Your task to perform on an android device: Open Reddit.com Image 0: 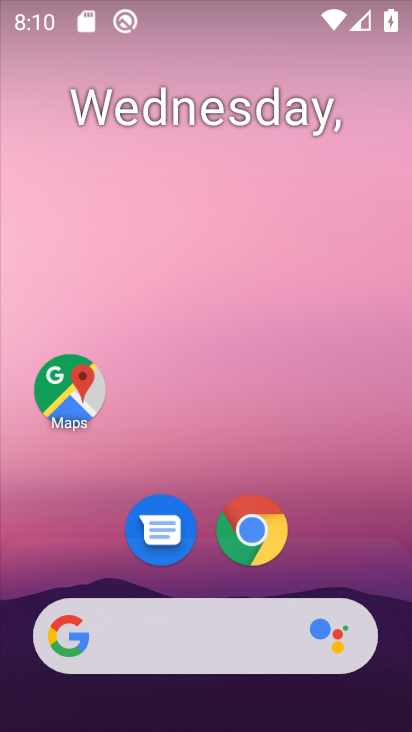
Step 0: drag from (330, 669) to (242, 47)
Your task to perform on an android device: Open Reddit.com Image 1: 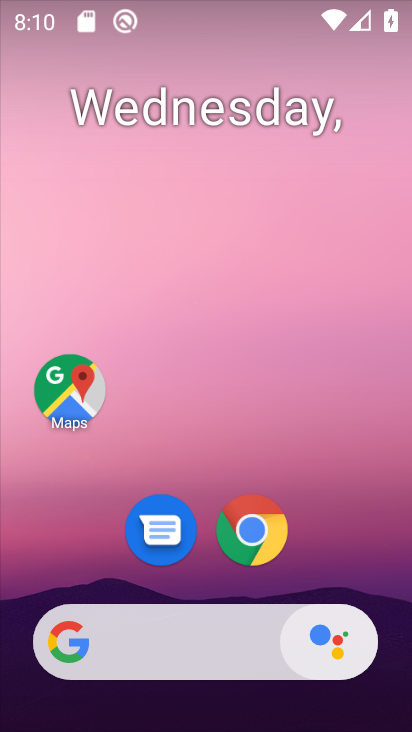
Step 1: drag from (316, 637) to (245, 65)
Your task to perform on an android device: Open Reddit.com Image 2: 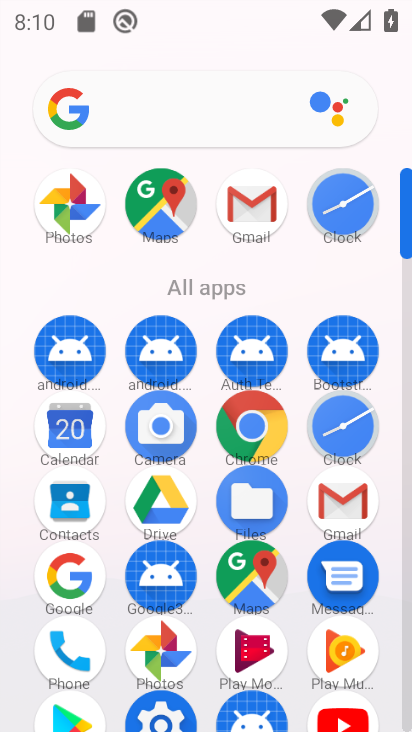
Step 2: drag from (266, 563) to (161, 41)
Your task to perform on an android device: Open Reddit.com Image 3: 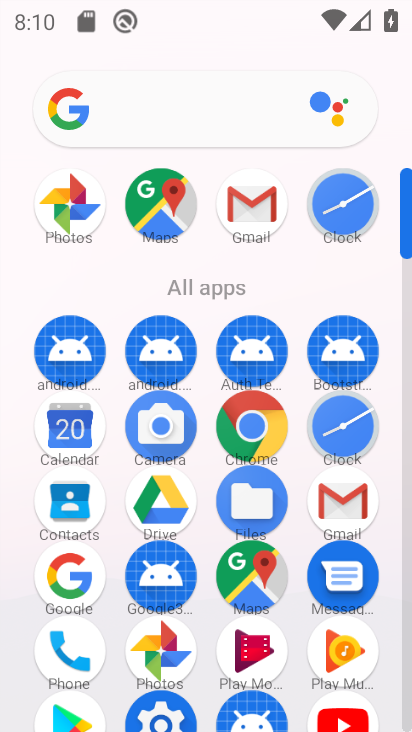
Step 3: drag from (253, 431) to (280, 472)
Your task to perform on an android device: Open Reddit.com Image 4: 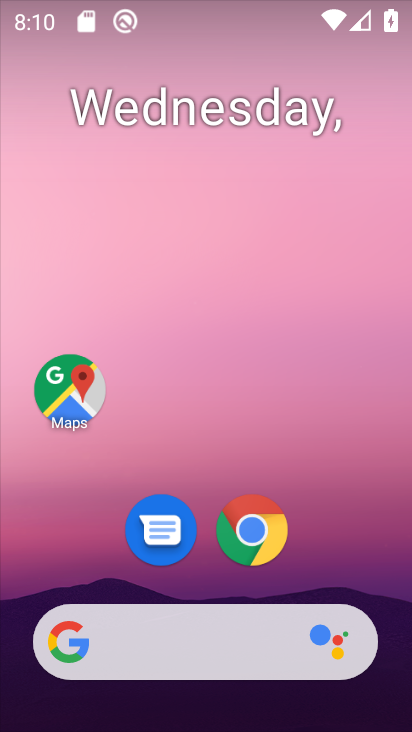
Step 4: drag from (307, 680) to (227, 55)
Your task to perform on an android device: Open Reddit.com Image 5: 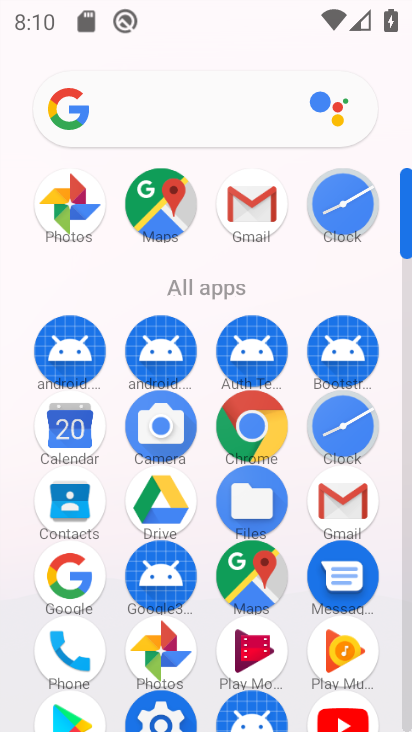
Step 5: drag from (285, 536) to (142, 25)
Your task to perform on an android device: Open Reddit.com Image 6: 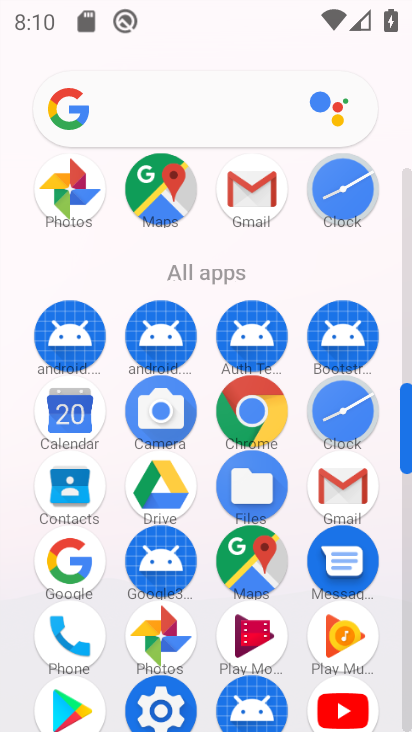
Step 6: click (249, 396)
Your task to perform on an android device: Open Reddit.com Image 7: 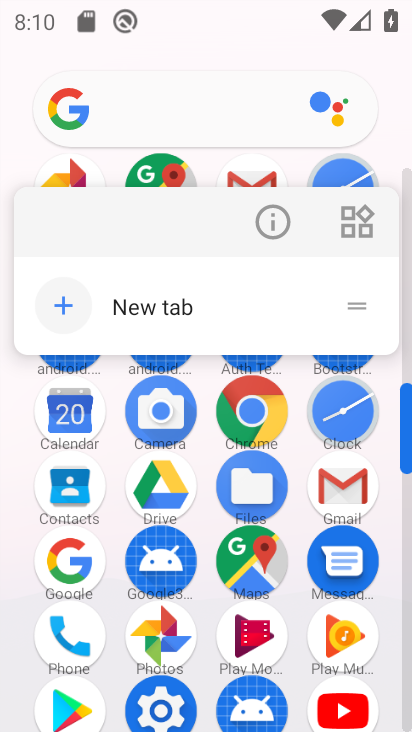
Step 7: click (251, 397)
Your task to perform on an android device: Open Reddit.com Image 8: 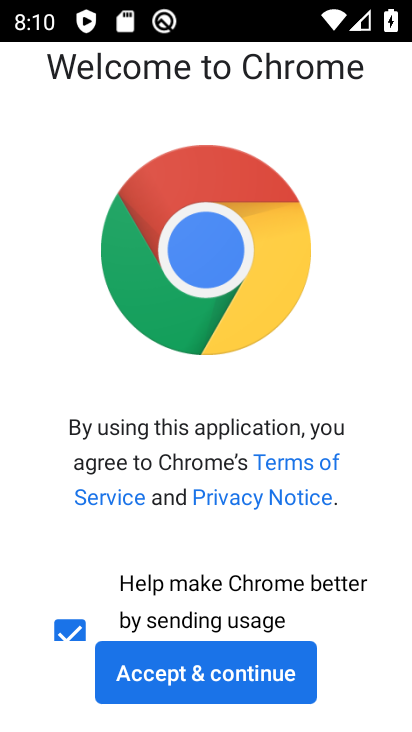
Step 8: click (147, 673)
Your task to perform on an android device: Open Reddit.com Image 9: 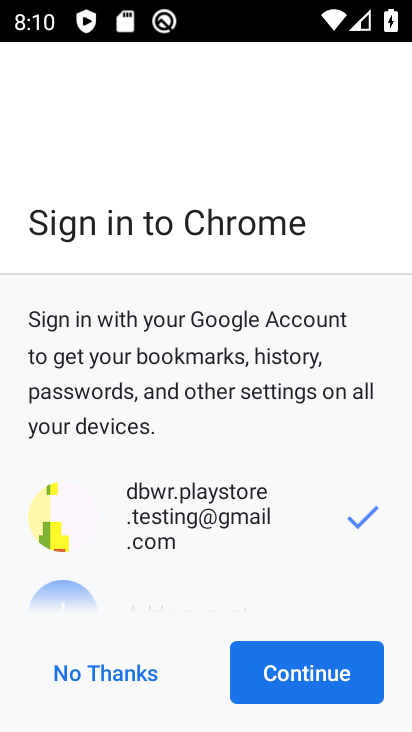
Step 9: click (324, 670)
Your task to perform on an android device: Open Reddit.com Image 10: 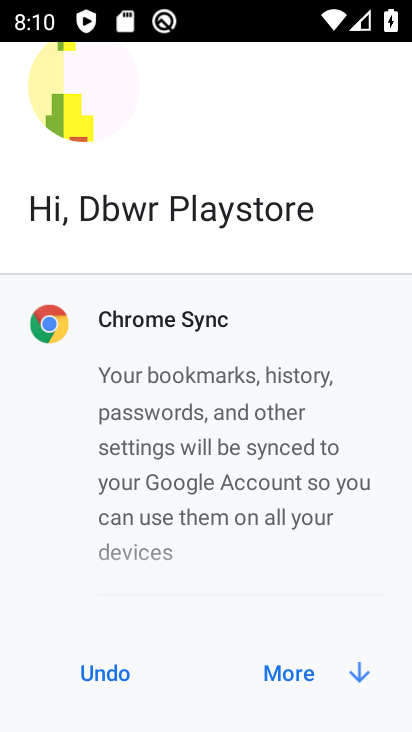
Step 10: click (324, 670)
Your task to perform on an android device: Open Reddit.com Image 11: 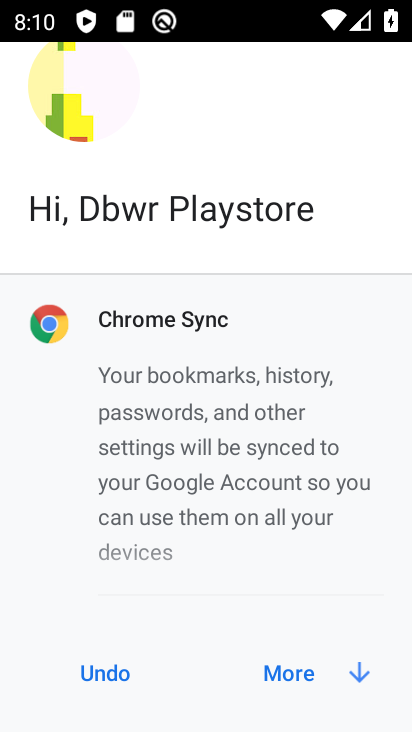
Step 11: click (324, 670)
Your task to perform on an android device: Open Reddit.com Image 12: 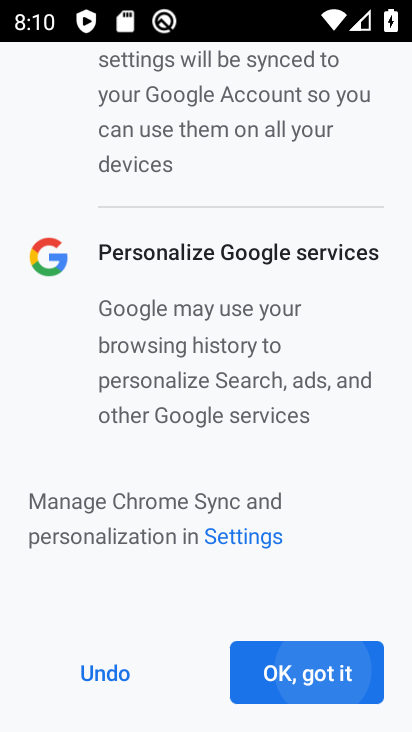
Step 12: click (295, 675)
Your task to perform on an android device: Open Reddit.com Image 13: 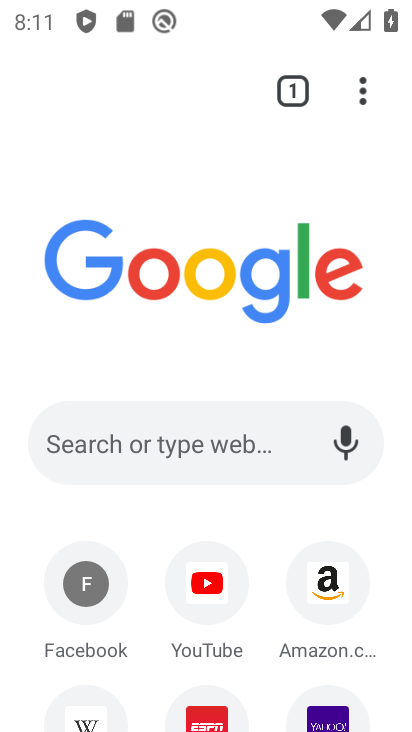
Step 13: drag from (166, 579) to (101, 262)
Your task to perform on an android device: Open Reddit.com Image 14: 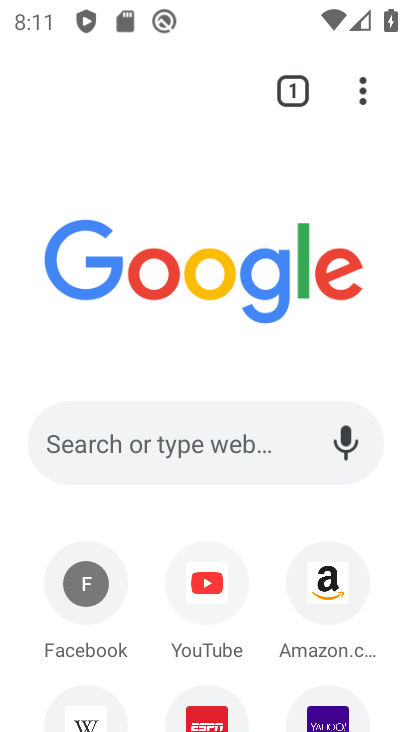
Step 14: drag from (196, 513) to (146, 188)
Your task to perform on an android device: Open Reddit.com Image 15: 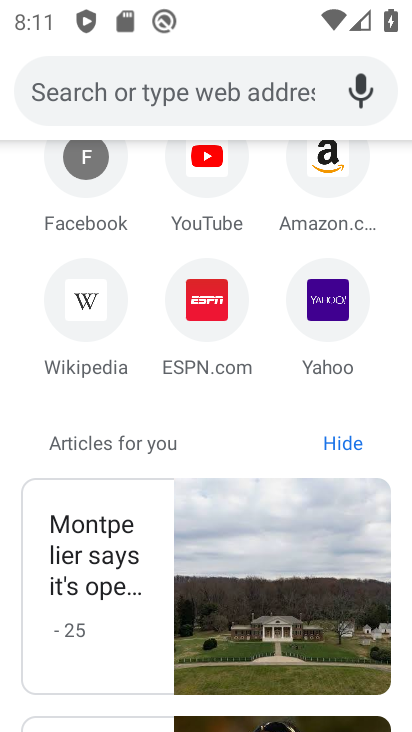
Step 15: drag from (166, 224) to (256, 641)
Your task to perform on an android device: Open Reddit.com Image 16: 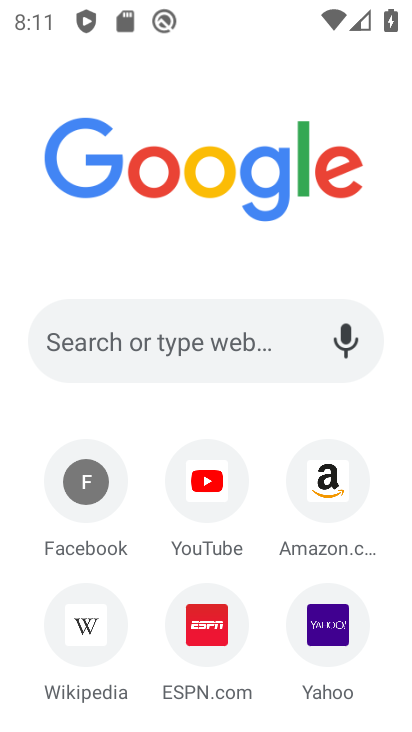
Step 16: click (112, 342)
Your task to perform on an android device: Open Reddit.com Image 17: 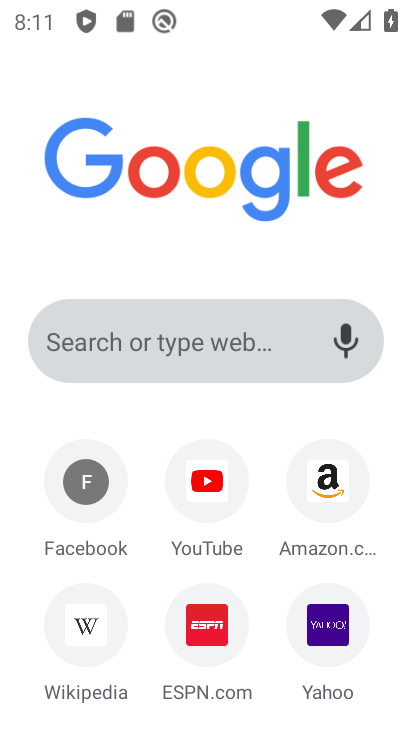
Step 17: click (112, 342)
Your task to perform on an android device: Open Reddit.com Image 18: 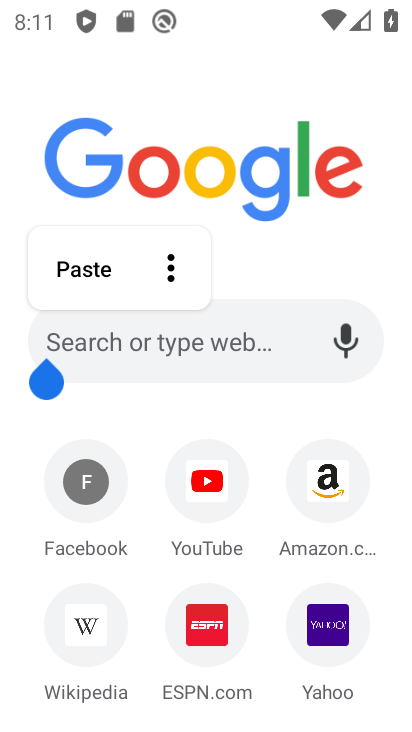
Step 18: click (87, 331)
Your task to perform on an android device: Open Reddit.com Image 19: 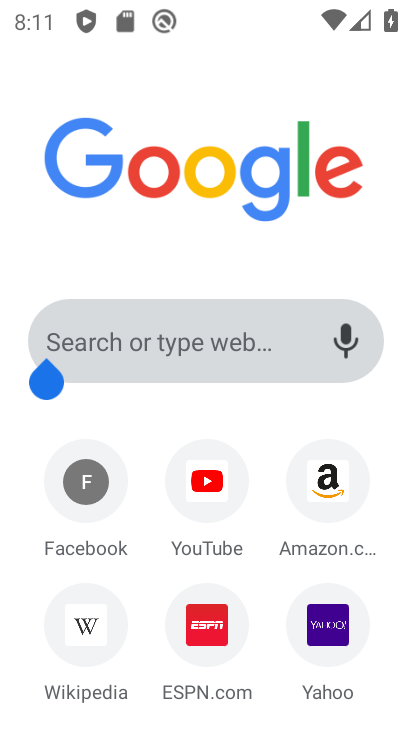
Step 19: click (88, 338)
Your task to perform on an android device: Open Reddit.com Image 20: 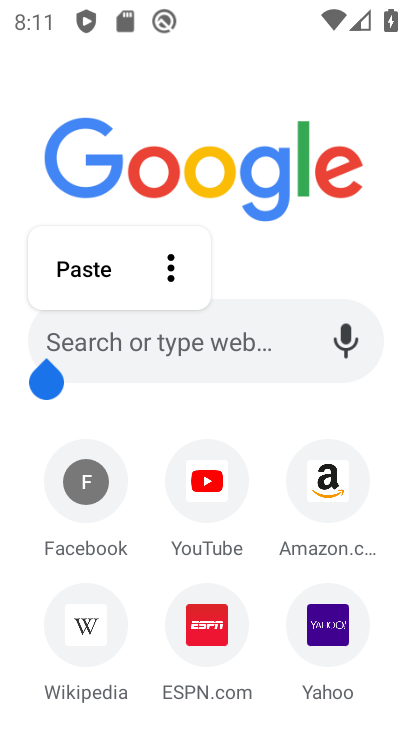
Step 20: click (84, 341)
Your task to perform on an android device: Open Reddit.com Image 21: 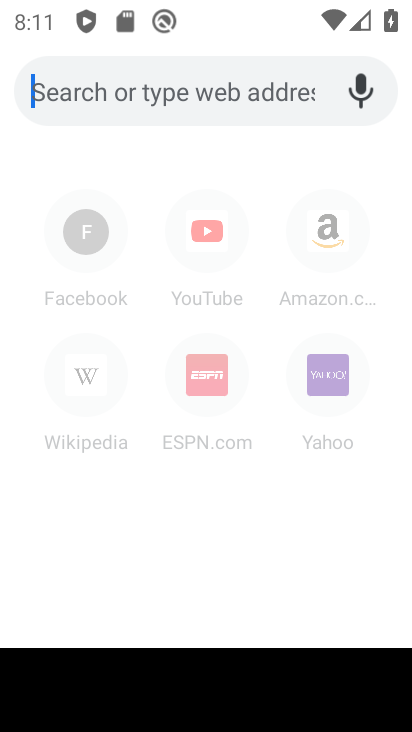
Step 21: type "www.reddit.com"
Your task to perform on an android device: Open Reddit.com Image 22: 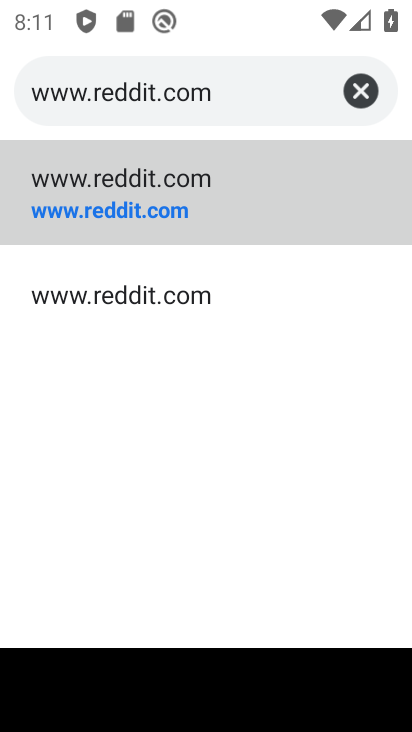
Step 22: click (118, 194)
Your task to perform on an android device: Open Reddit.com Image 23: 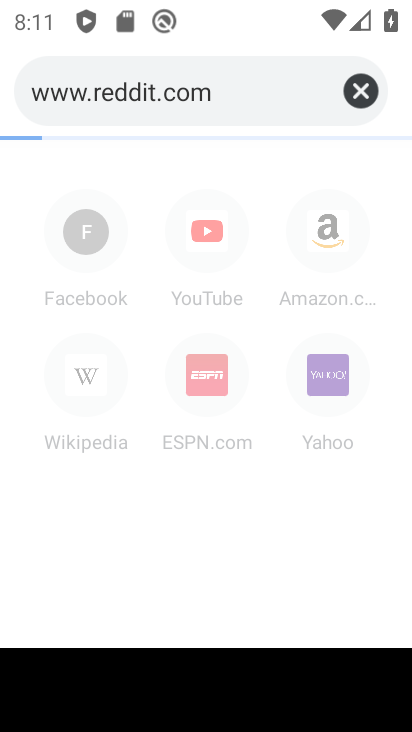
Step 23: click (118, 194)
Your task to perform on an android device: Open Reddit.com Image 24: 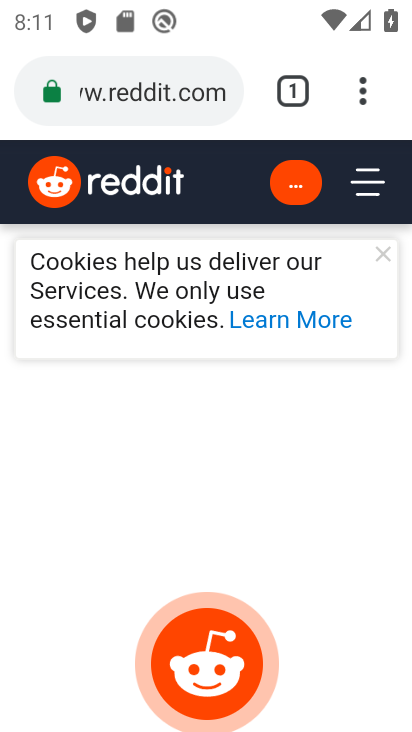
Step 24: task complete